Your task to perform on an android device: Open calendar and show me the first week of next month Image 0: 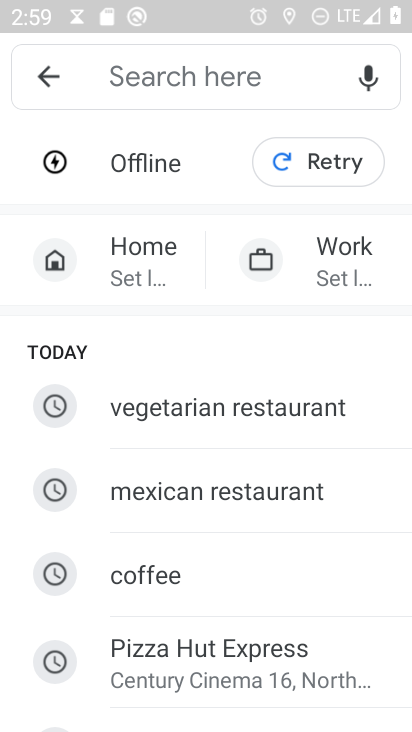
Step 0: press home button
Your task to perform on an android device: Open calendar and show me the first week of next month Image 1: 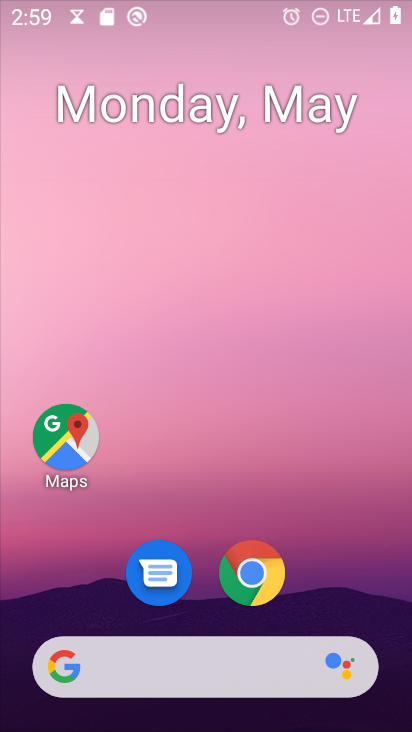
Step 1: drag from (209, 560) to (215, 37)
Your task to perform on an android device: Open calendar and show me the first week of next month Image 2: 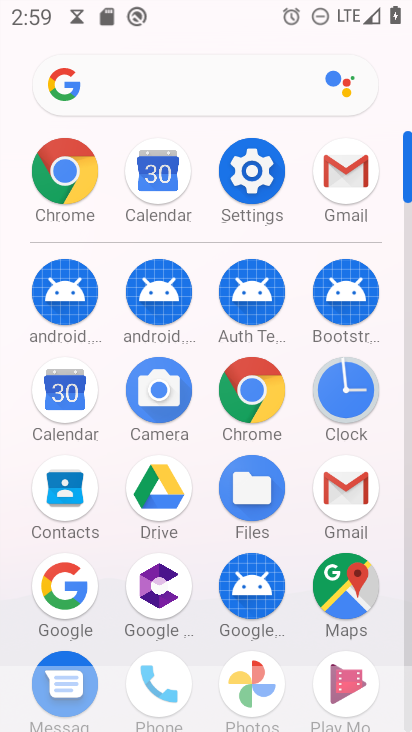
Step 2: click (78, 398)
Your task to perform on an android device: Open calendar and show me the first week of next month Image 3: 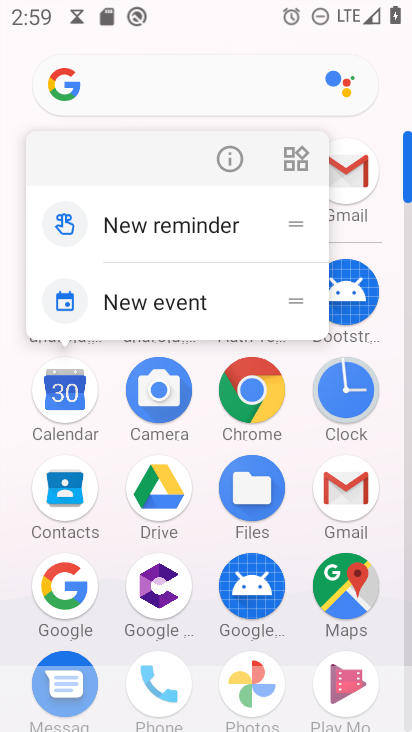
Step 3: click (85, 398)
Your task to perform on an android device: Open calendar and show me the first week of next month Image 4: 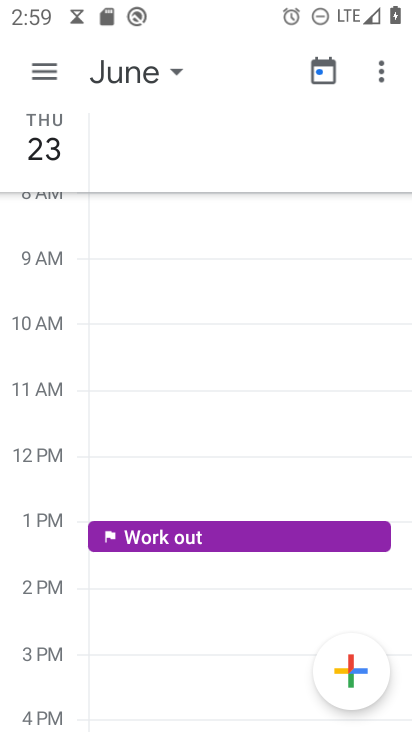
Step 4: click (176, 71)
Your task to perform on an android device: Open calendar and show me the first week of next month Image 5: 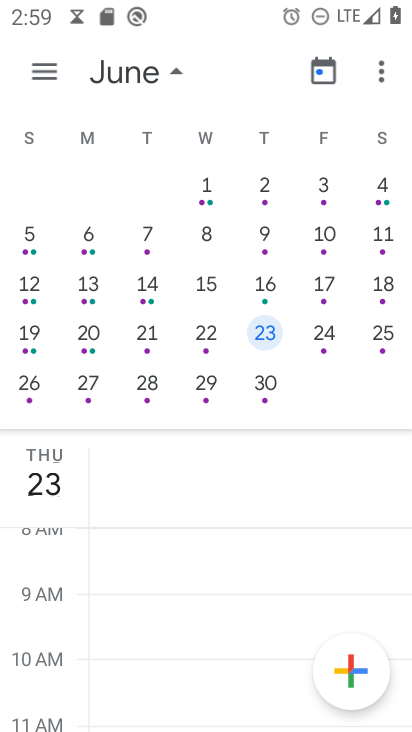
Step 5: click (208, 236)
Your task to perform on an android device: Open calendar and show me the first week of next month Image 6: 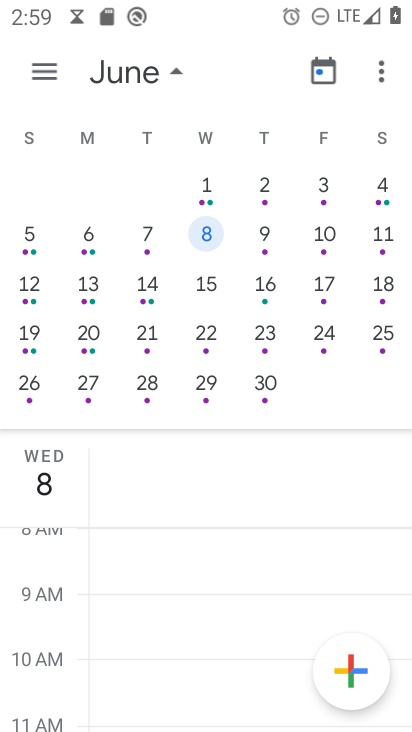
Step 6: click (179, 69)
Your task to perform on an android device: Open calendar and show me the first week of next month Image 7: 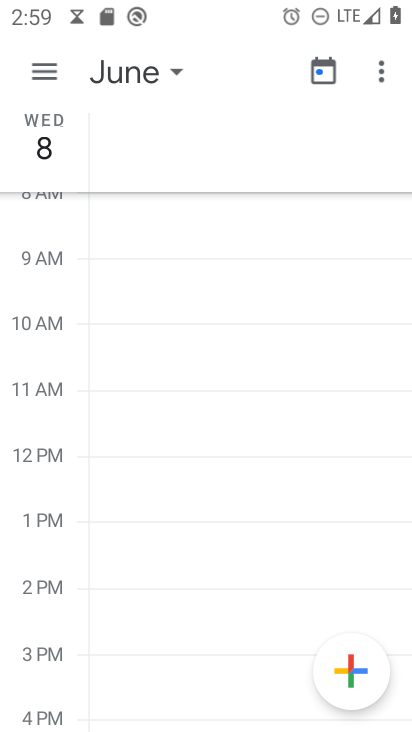
Step 7: click (177, 72)
Your task to perform on an android device: Open calendar and show me the first week of next month Image 8: 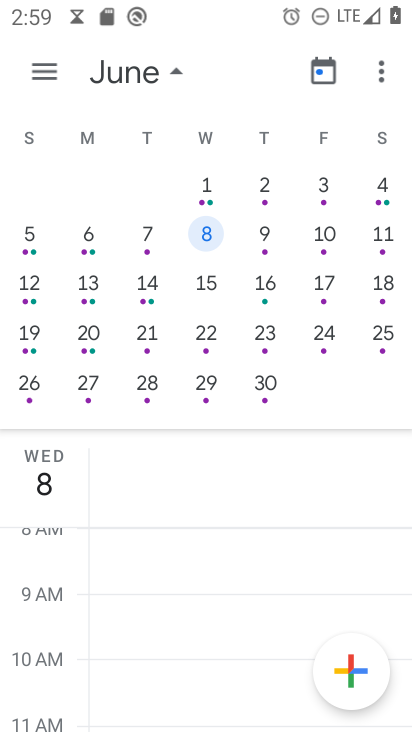
Step 8: click (45, 70)
Your task to perform on an android device: Open calendar and show me the first week of next month Image 9: 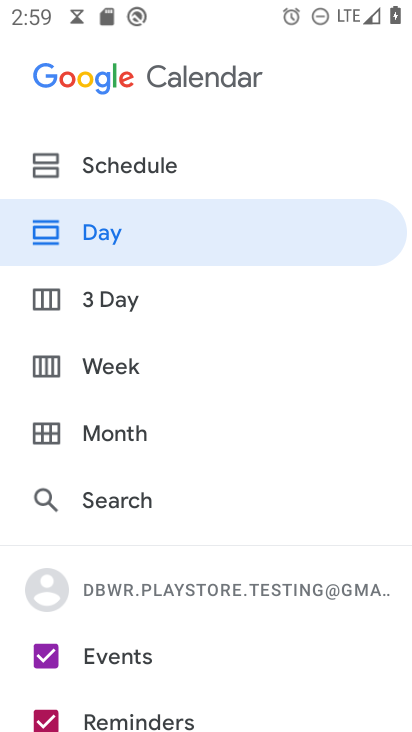
Step 9: click (143, 372)
Your task to perform on an android device: Open calendar and show me the first week of next month Image 10: 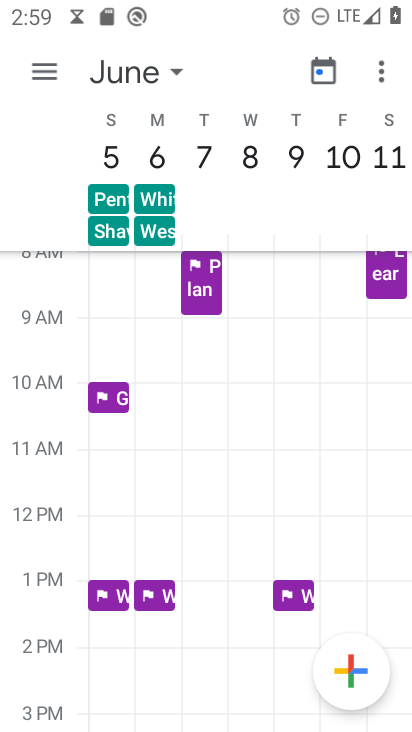
Step 10: task complete